Your task to perform on an android device: change timer sound Image 0: 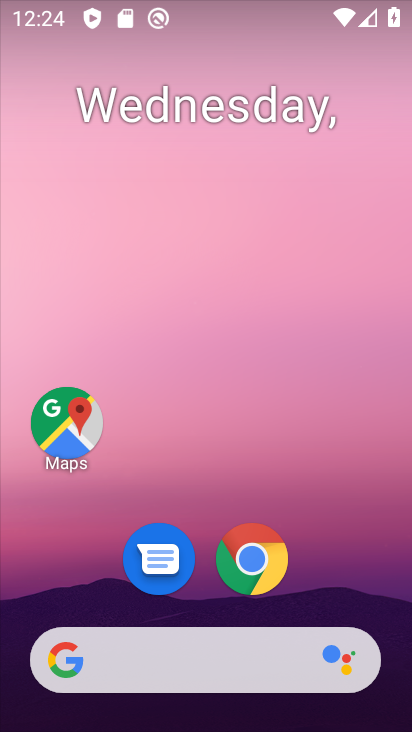
Step 0: drag from (189, 598) to (224, 259)
Your task to perform on an android device: change timer sound Image 1: 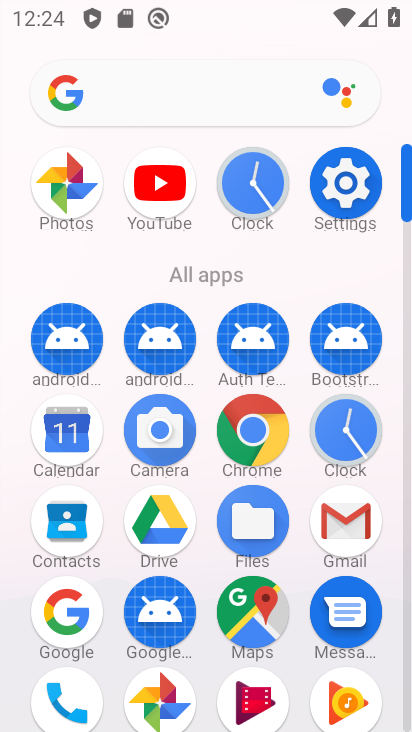
Step 1: click (354, 434)
Your task to perform on an android device: change timer sound Image 2: 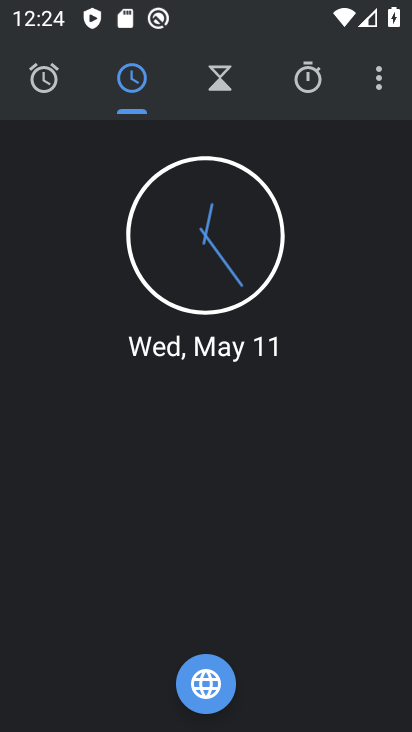
Step 2: click (385, 66)
Your task to perform on an android device: change timer sound Image 3: 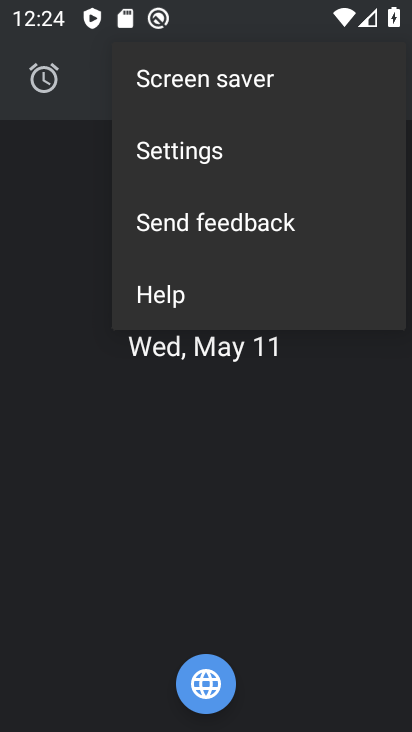
Step 3: click (216, 166)
Your task to perform on an android device: change timer sound Image 4: 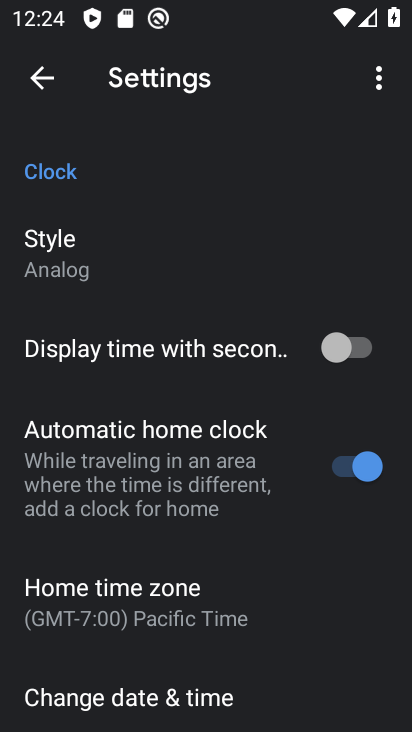
Step 4: drag from (152, 562) to (168, 296)
Your task to perform on an android device: change timer sound Image 5: 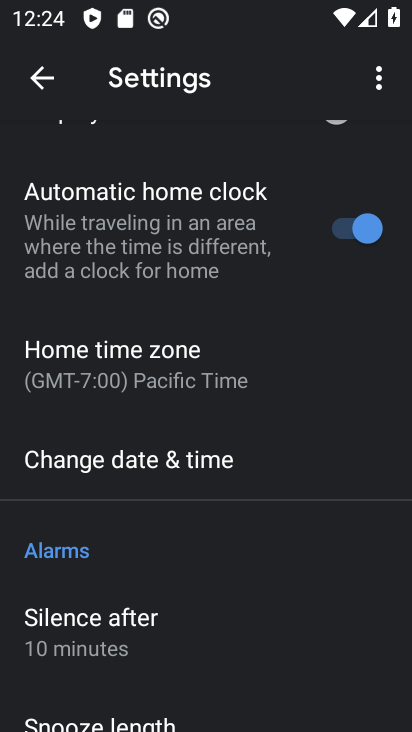
Step 5: drag from (147, 588) to (178, 238)
Your task to perform on an android device: change timer sound Image 6: 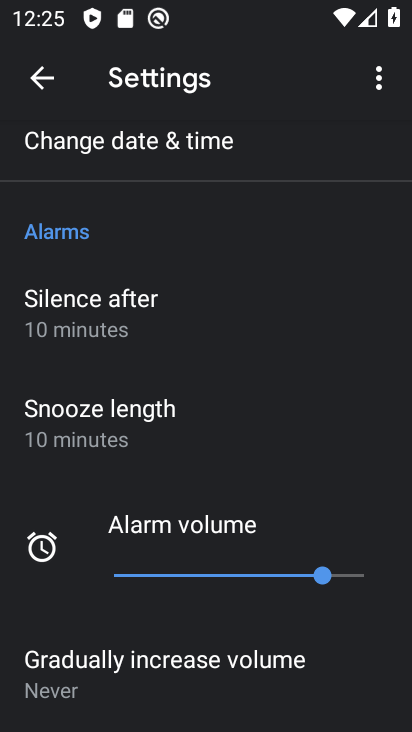
Step 6: drag from (114, 559) to (159, 272)
Your task to perform on an android device: change timer sound Image 7: 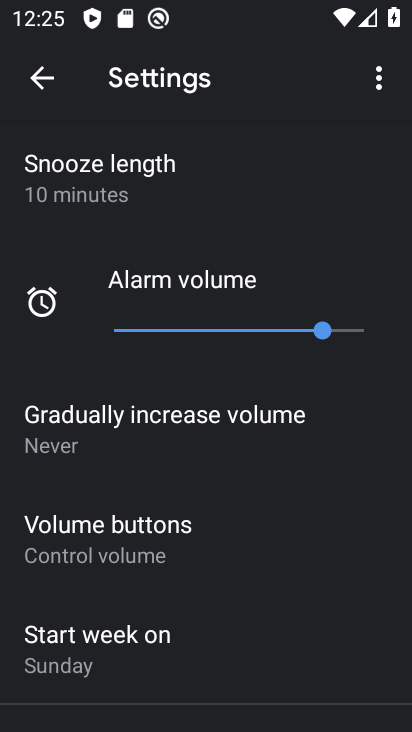
Step 7: drag from (132, 639) to (152, 282)
Your task to perform on an android device: change timer sound Image 8: 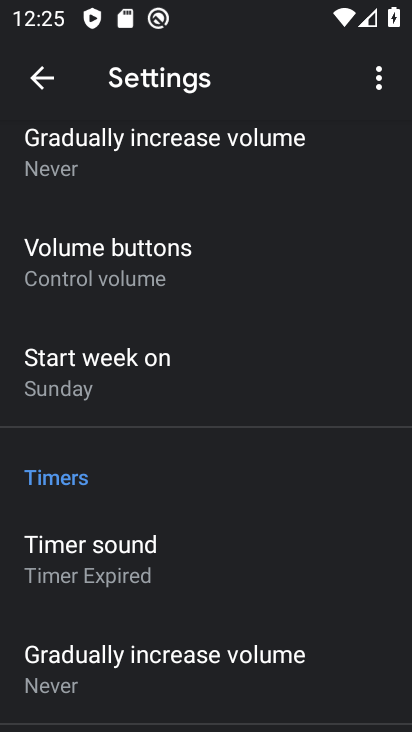
Step 8: click (129, 579)
Your task to perform on an android device: change timer sound Image 9: 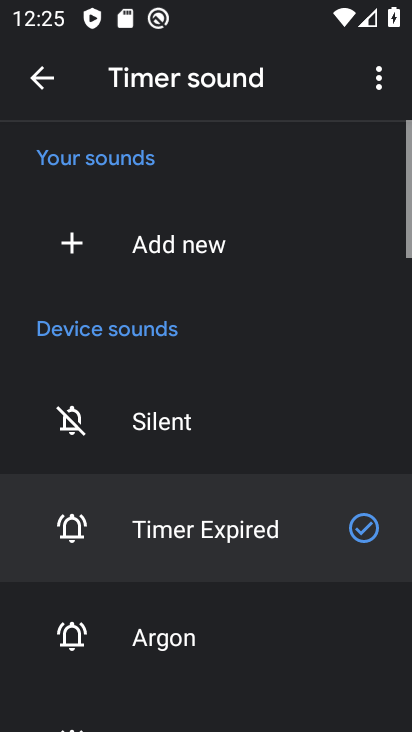
Step 9: drag from (216, 642) to (219, 297)
Your task to perform on an android device: change timer sound Image 10: 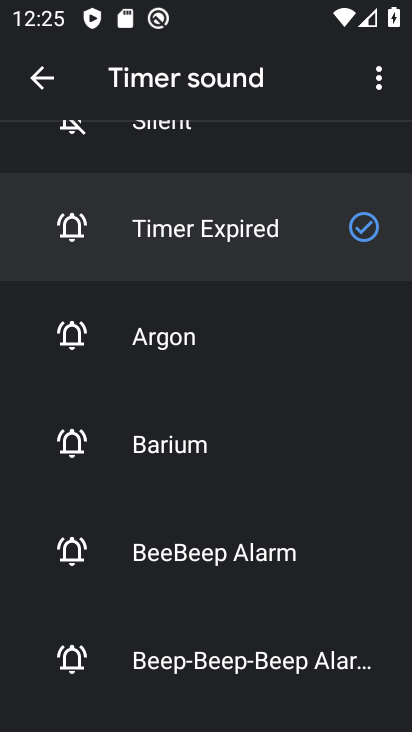
Step 10: click (167, 566)
Your task to perform on an android device: change timer sound Image 11: 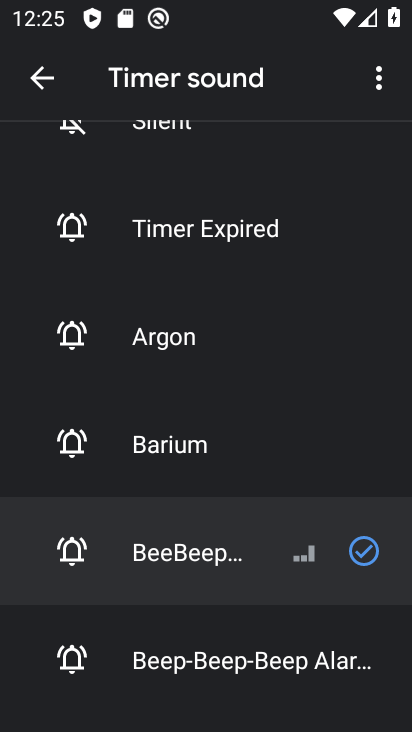
Step 11: task complete